Your task to perform on an android device: turn off location history Image 0: 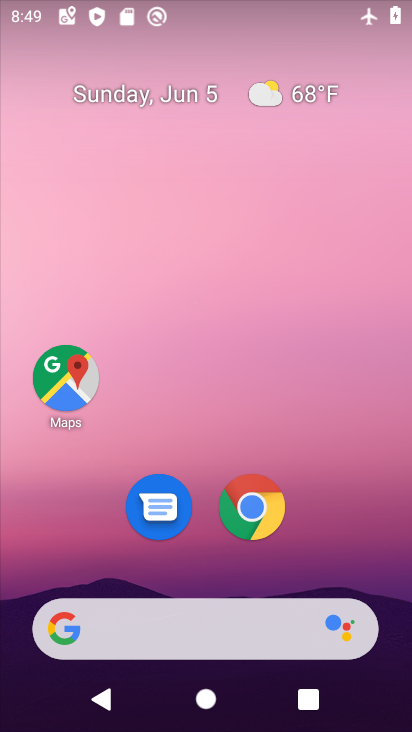
Step 0: drag from (199, 569) to (293, 5)
Your task to perform on an android device: turn off location history Image 1: 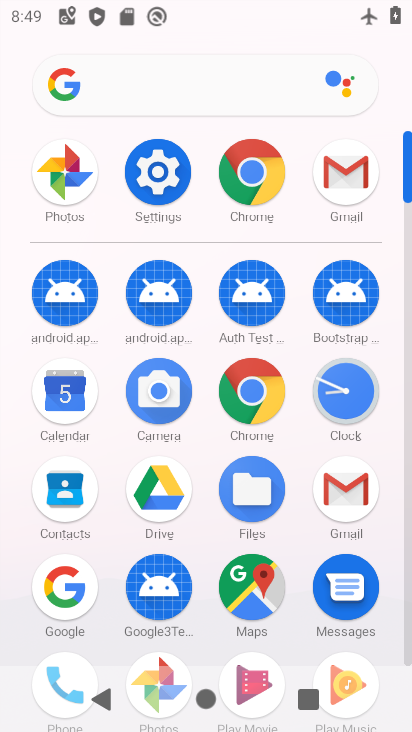
Step 1: click (166, 194)
Your task to perform on an android device: turn off location history Image 2: 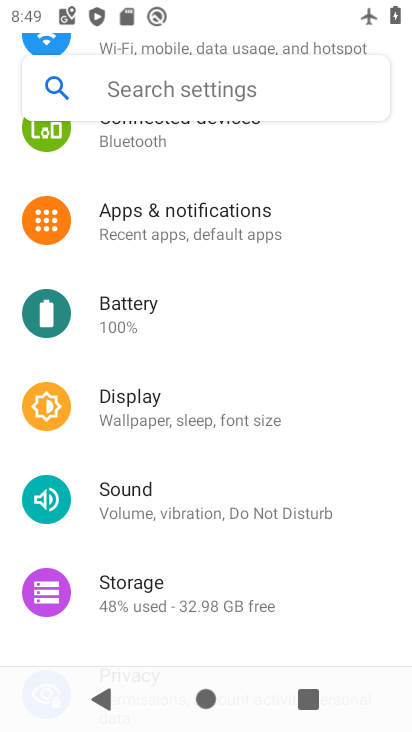
Step 2: drag from (222, 509) to (282, 205)
Your task to perform on an android device: turn off location history Image 3: 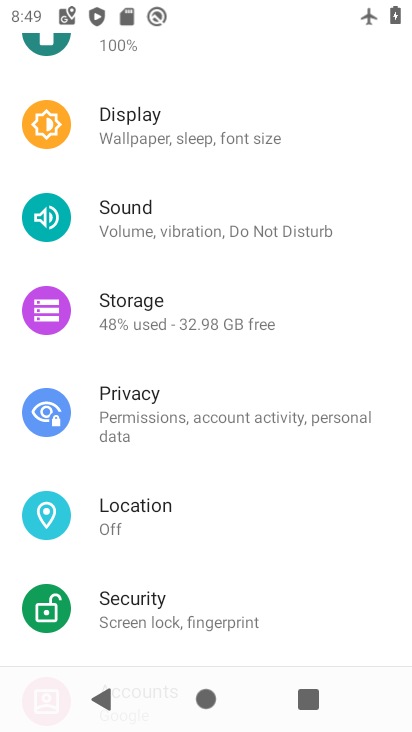
Step 3: click (228, 517)
Your task to perform on an android device: turn off location history Image 4: 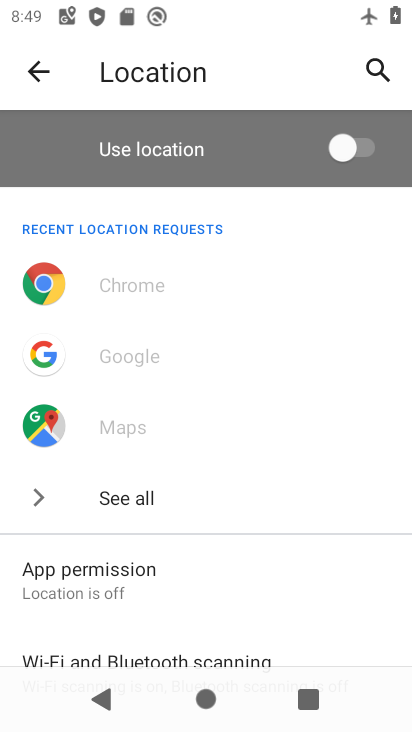
Step 4: drag from (201, 586) to (264, 108)
Your task to perform on an android device: turn off location history Image 5: 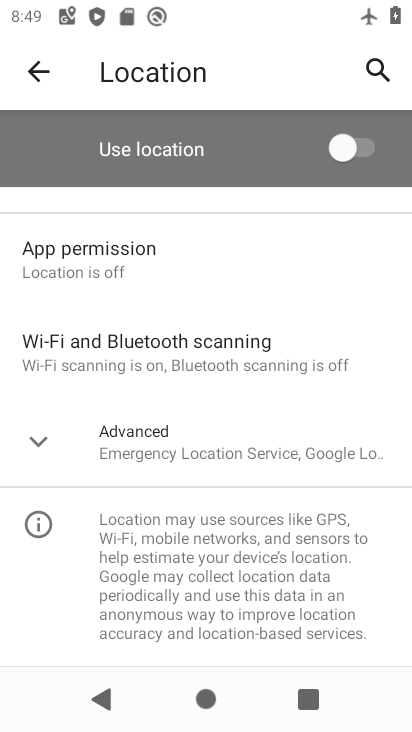
Step 5: click (210, 451)
Your task to perform on an android device: turn off location history Image 6: 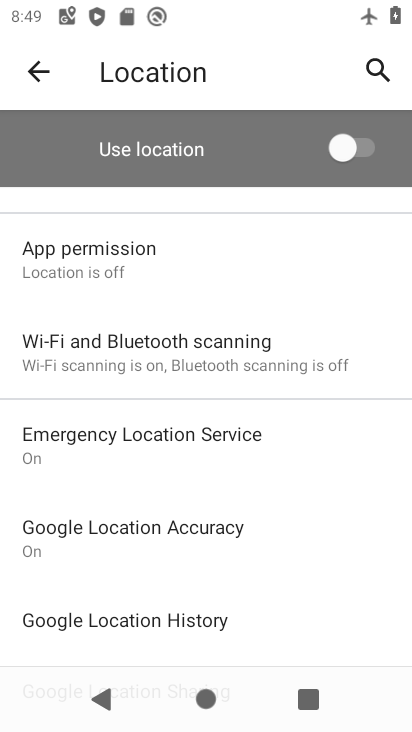
Step 6: click (188, 628)
Your task to perform on an android device: turn off location history Image 7: 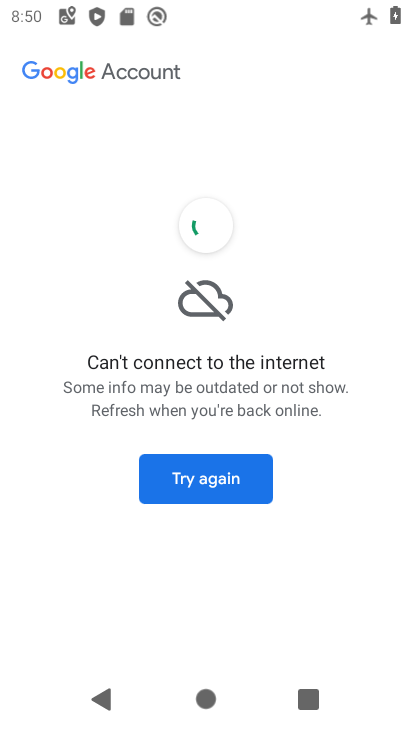
Step 7: task complete